Your task to perform on an android device: Go to Google maps Image 0: 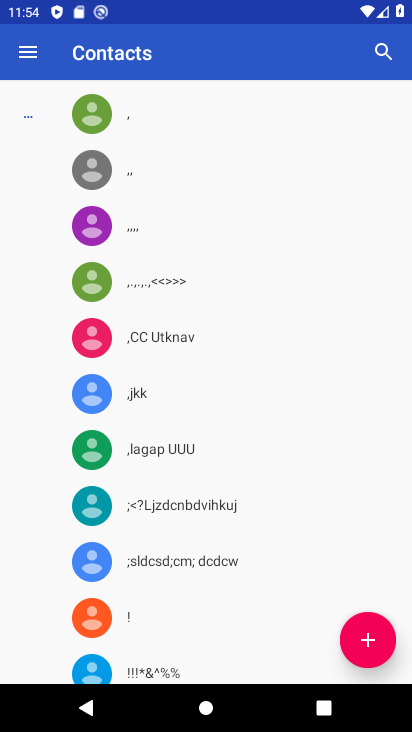
Step 0: press home button
Your task to perform on an android device: Go to Google maps Image 1: 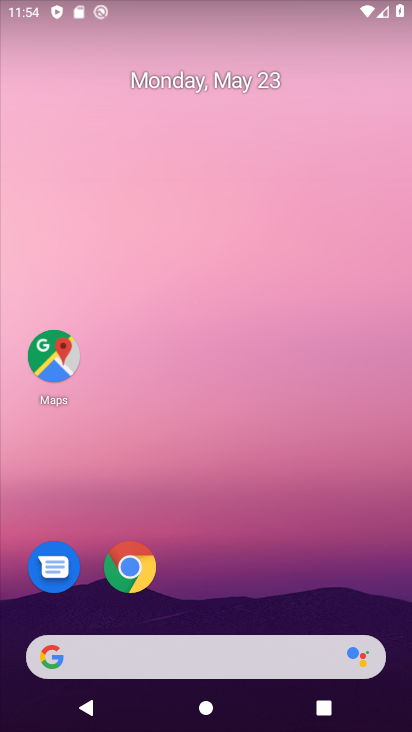
Step 1: click (64, 379)
Your task to perform on an android device: Go to Google maps Image 2: 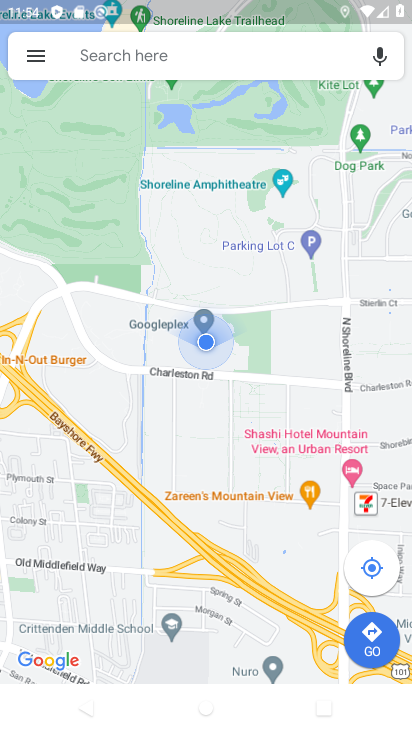
Step 2: task complete